Your task to perform on an android device: When is my next meeting? Image 0: 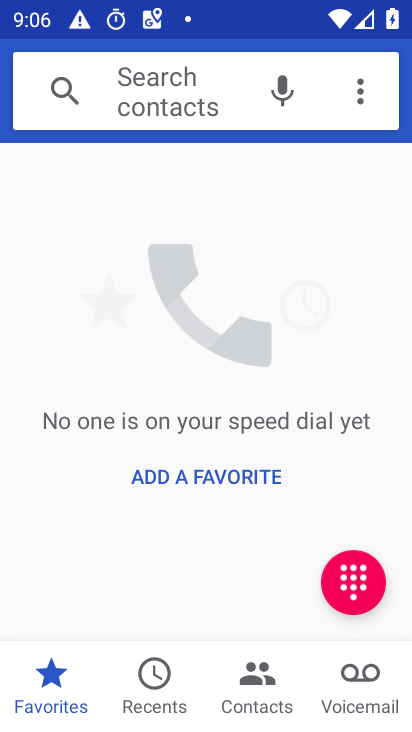
Step 0: press home button
Your task to perform on an android device: When is my next meeting? Image 1: 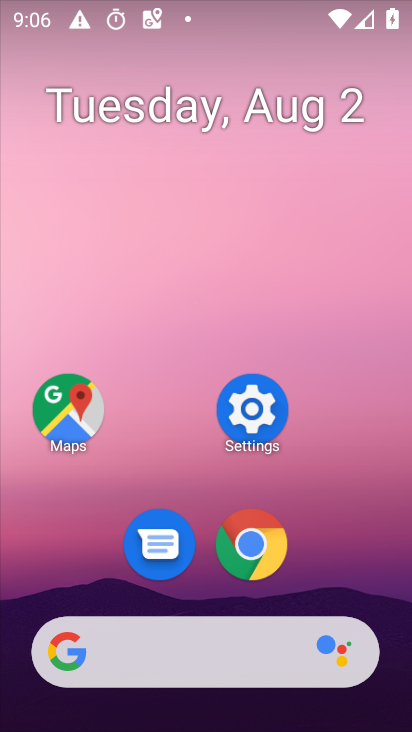
Step 1: drag from (134, 644) to (266, 115)
Your task to perform on an android device: When is my next meeting? Image 2: 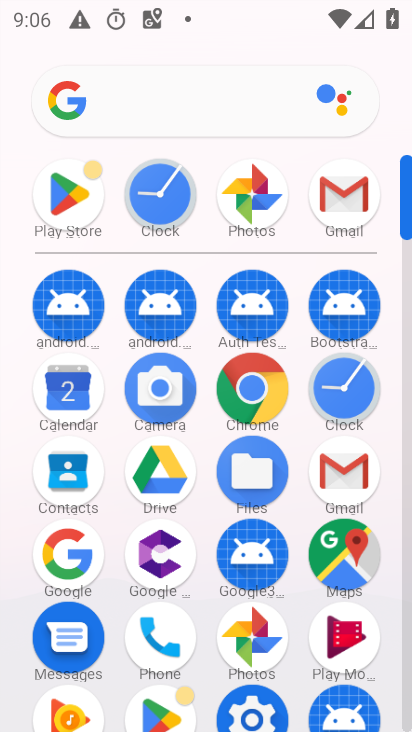
Step 2: click (73, 405)
Your task to perform on an android device: When is my next meeting? Image 3: 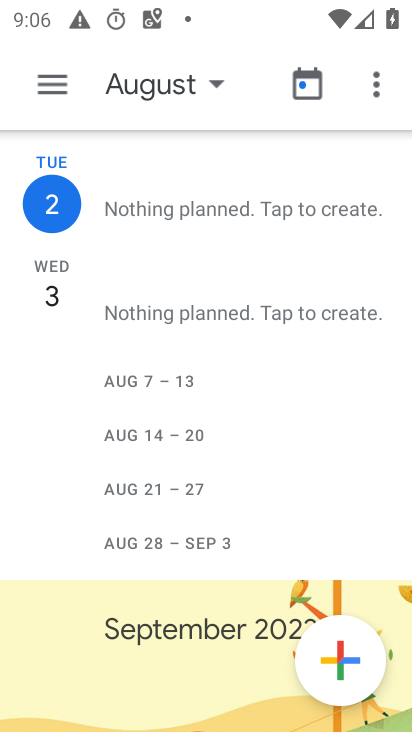
Step 3: task complete